Your task to perform on an android device: Open Yahoo.com Image 0: 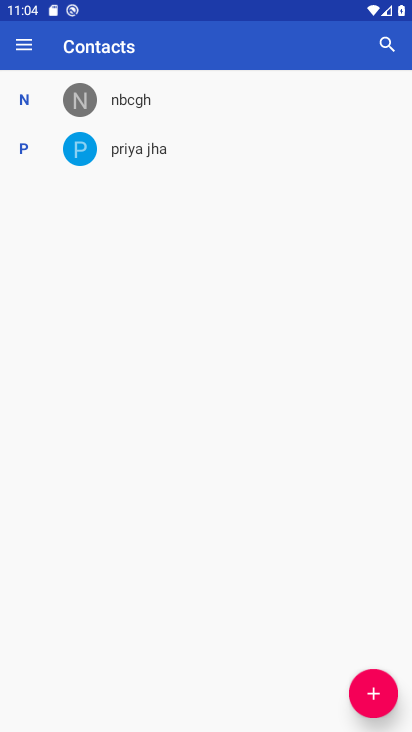
Step 0: press home button
Your task to perform on an android device: Open Yahoo.com Image 1: 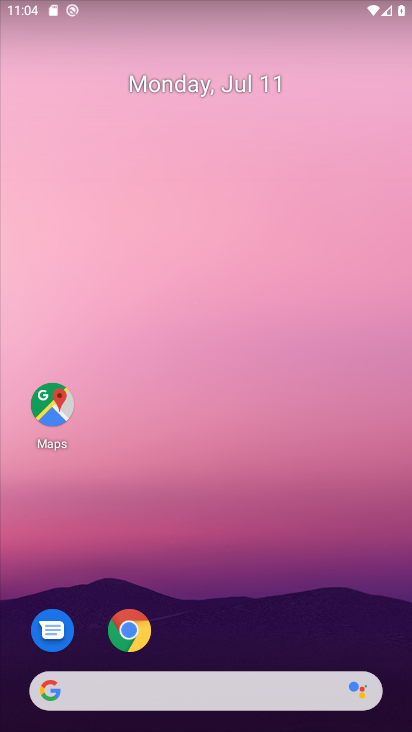
Step 1: click (130, 631)
Your task to perform on an android device: Open Yahoo.com Image 2: 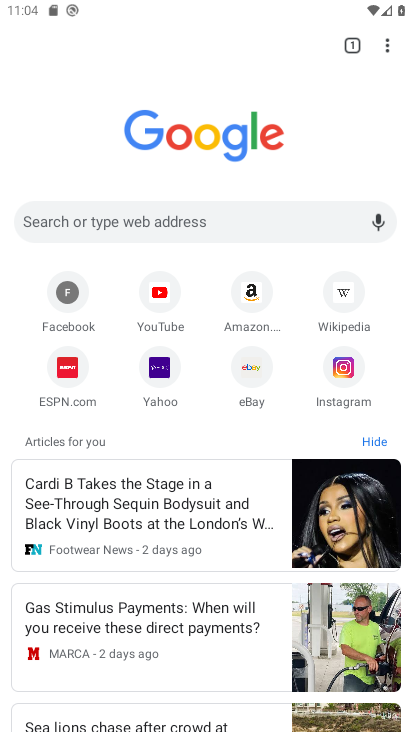
Step 2: click (154, 390)
Your task to perform on an android device: Open Yahoo.com Image 3: 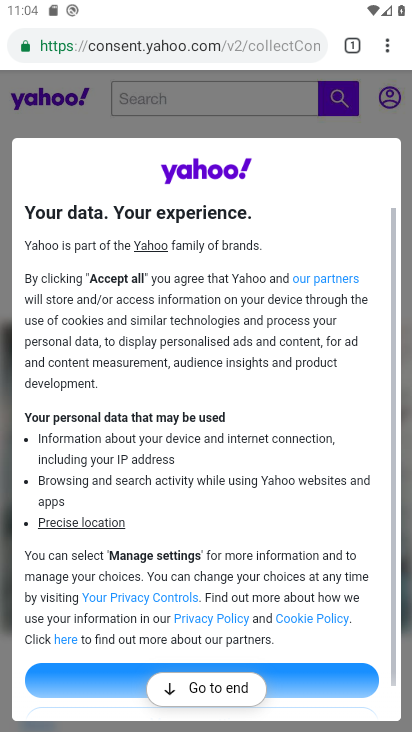
Step 3: task complete